Your task to perform on an android device: toggle airplane mode Image 0: 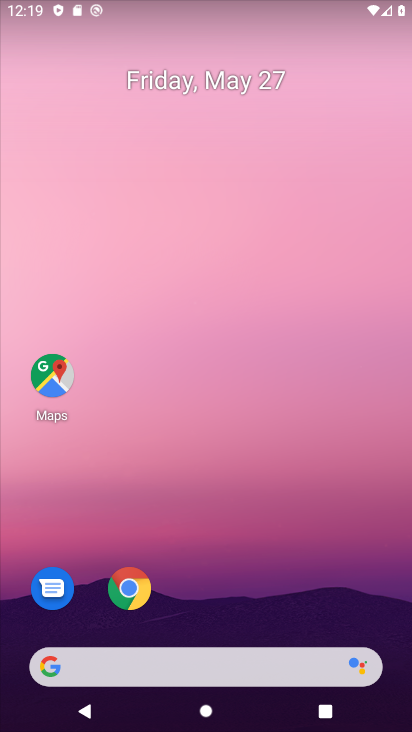
Step 0: drag from (354, 0) to (310, 705)
Your task to perform on an android device: toggle airplane mode Image 1: 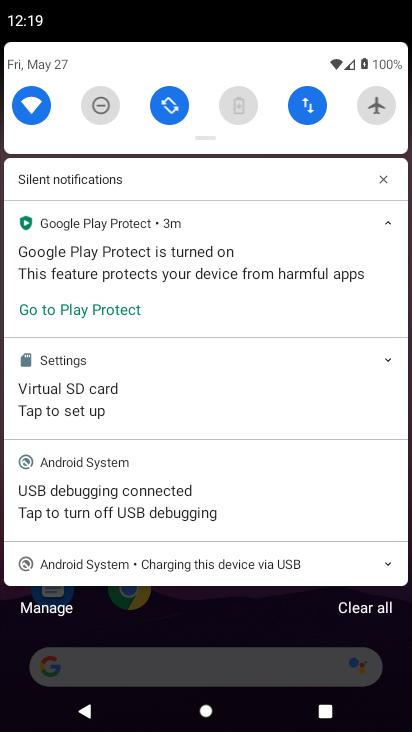
Step 1: click (390, 112)
Your task to perform on an android device: toggle airplane mode Image 2: 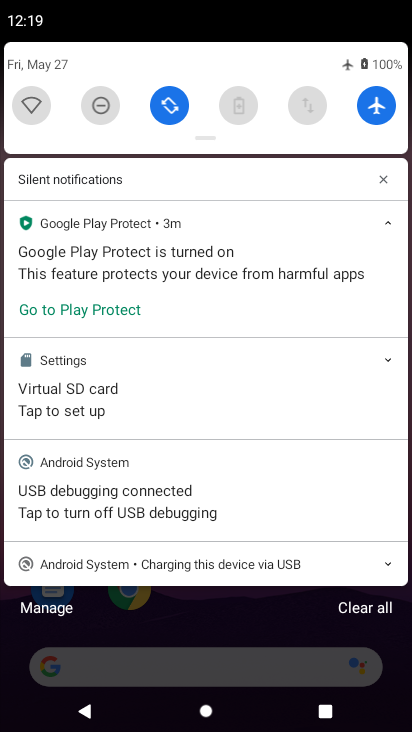
Step 2: task complete